Your task to perform on an android device: Open the stopwatch Image 0: 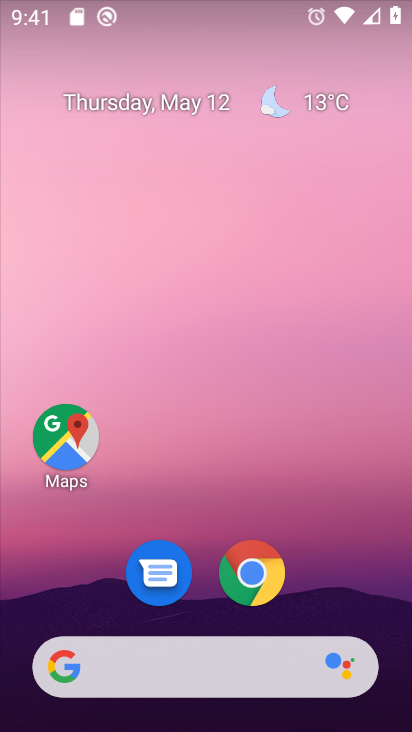
Step 0: drag from (405, 629) to (381, 261)
Your task to perform on an android device: Open the stopwatch Image 1: 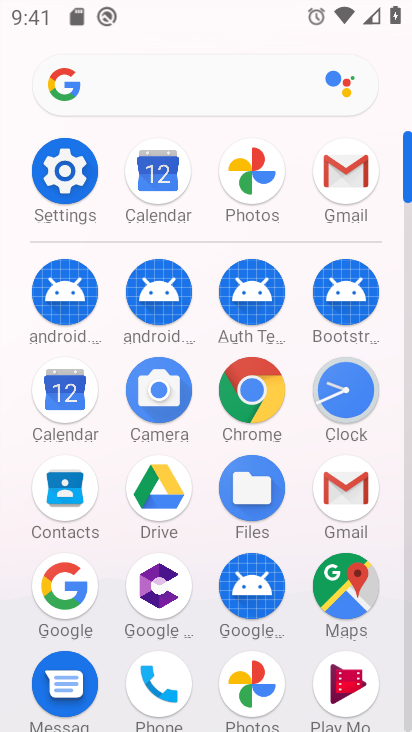
Step 1: click (352, 401)
Your task to perform on an android device: Open the stopwatch Image 2: 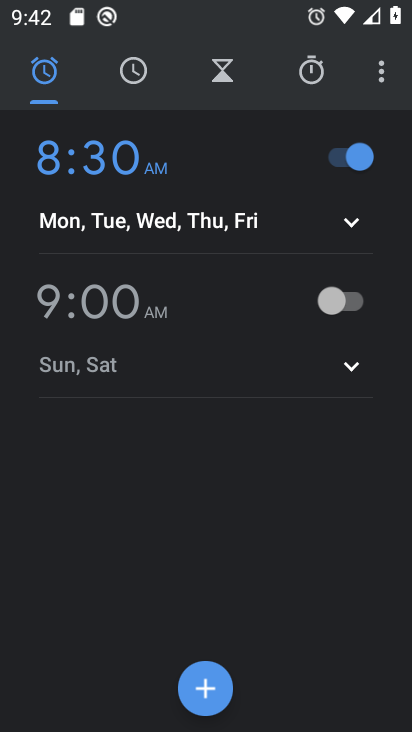
Step 2: click (223, 69)
Your task to perform on an android device: Open the stopwatch Image 3: 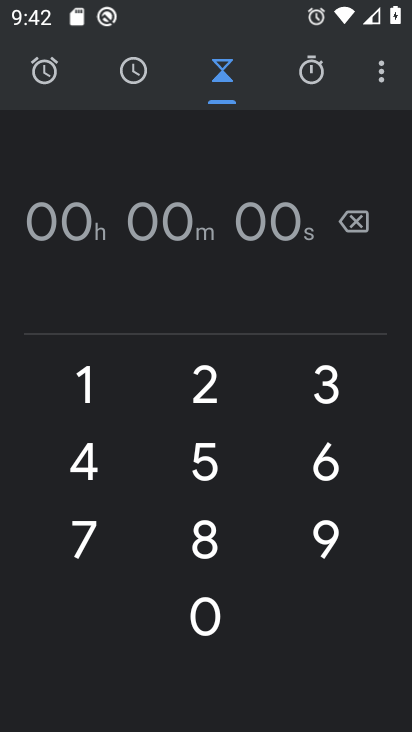
Step 3: click (314, 64)
Your task to perform on an android device: Open the stopwatch Image 4: 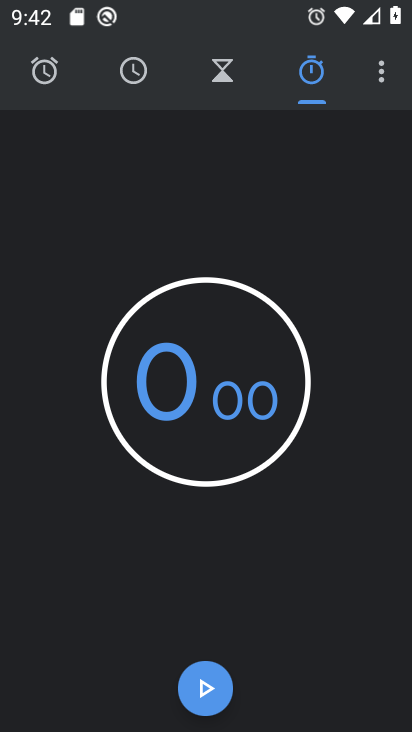
Step 4: click (201, 704)
Your task to perform on an android device: Open the stopwatch Image 5: 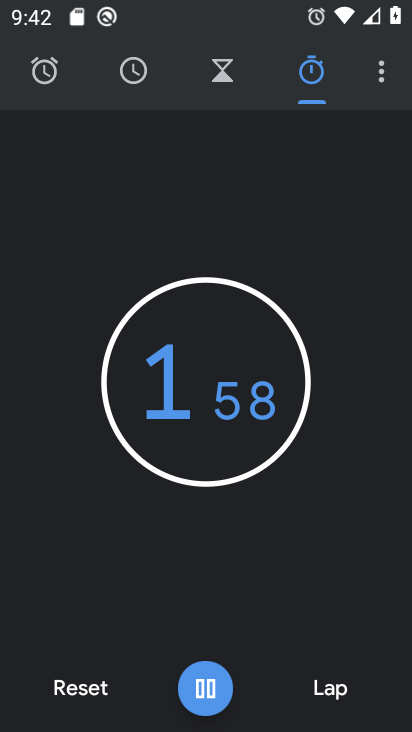
Step 5: task complete